Your task to perform on an android device: Open Google Maps and go to "Timeline" Image 0: 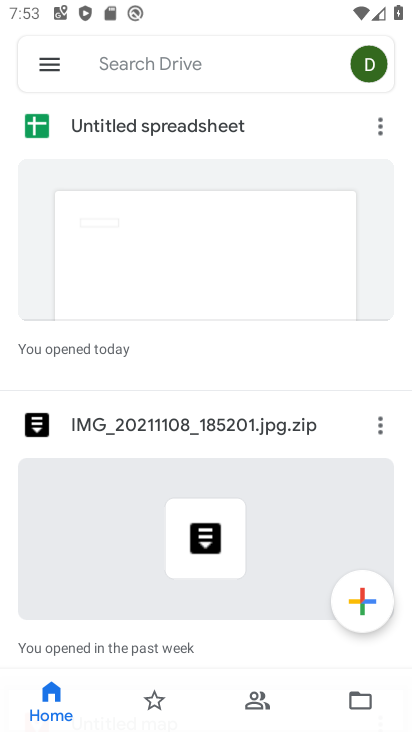
Step 0: press home button
Your task to perform on an android device: Open Google Maps and go to "Timeline" Image 1: 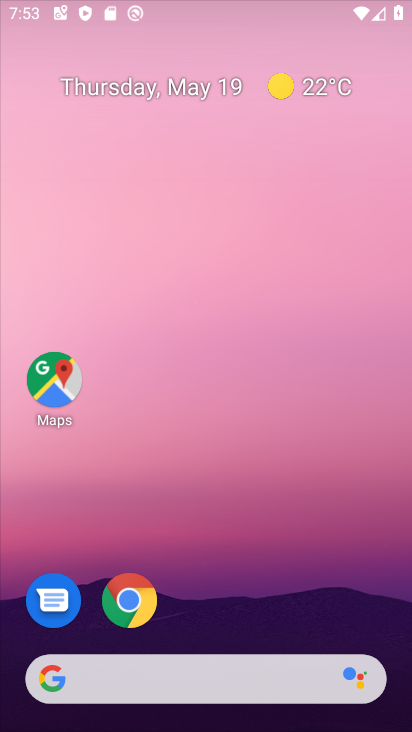
Step 1: drag from (298, 553) to (296, 207)
Your task to perform on an android device: Open Google Maps and go to "Timeline" Image 2: 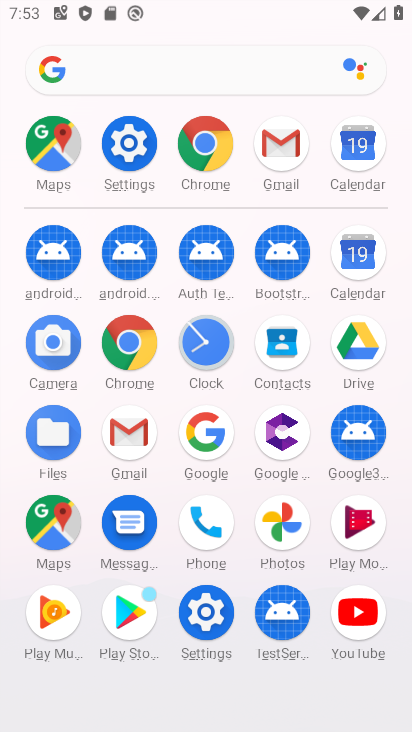
Step 2: click (40, 144)
Your task to perform on an android device: Open Google Maps and go to "Timeline" Image 3: 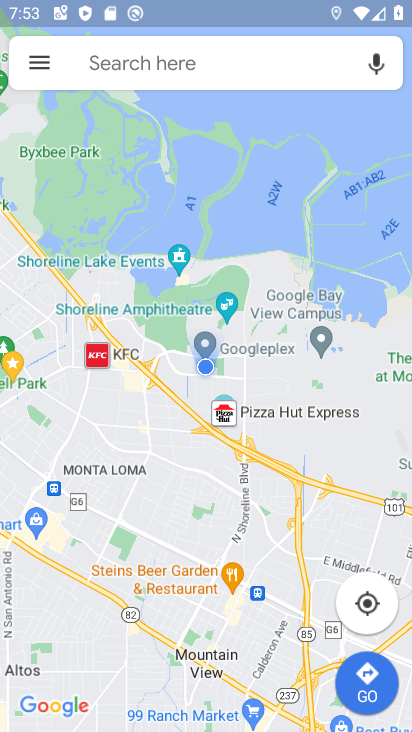
Step 3: click (26, 83)
Your task to perform on an android device: Open Google Maps and go to "Timeline" Image 4: 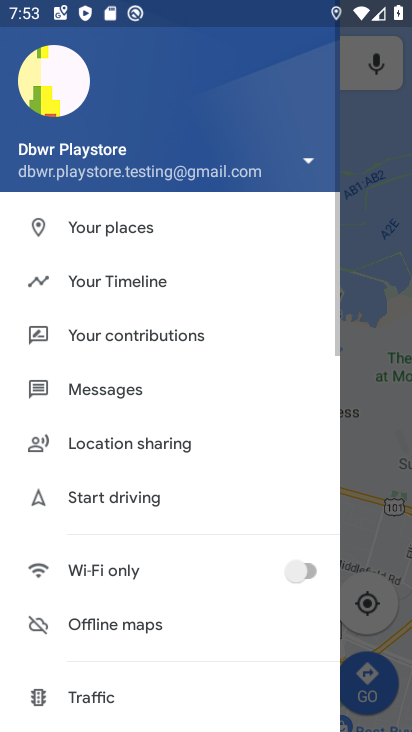
Step 4: click (96, 283)
Your task to perform on an android device: Open Google Maps and go to "Timeline" Image 5: 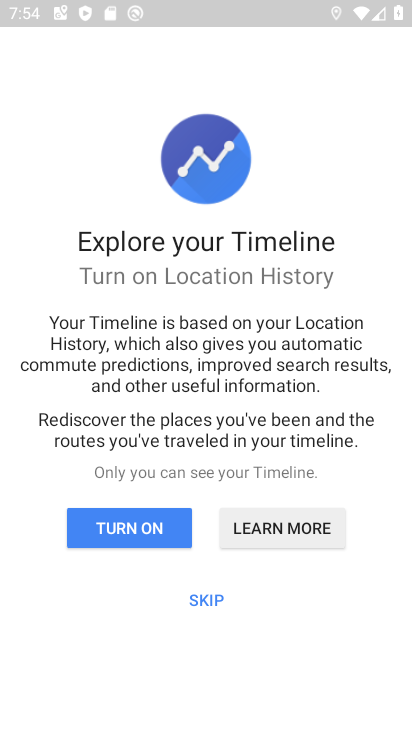
Step 5: click (193, 604)
Your task to perform on an android device: Open Google Maps and go to "Timeline" Image 6: 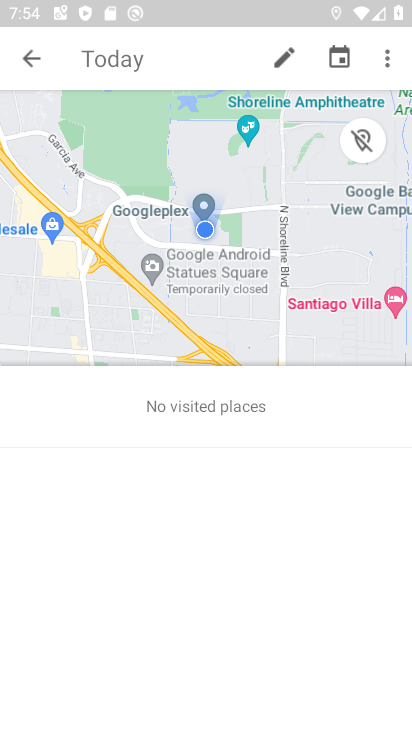
Step 6: task complete